Your task to perform on an android device: Go to location settings Image 0: 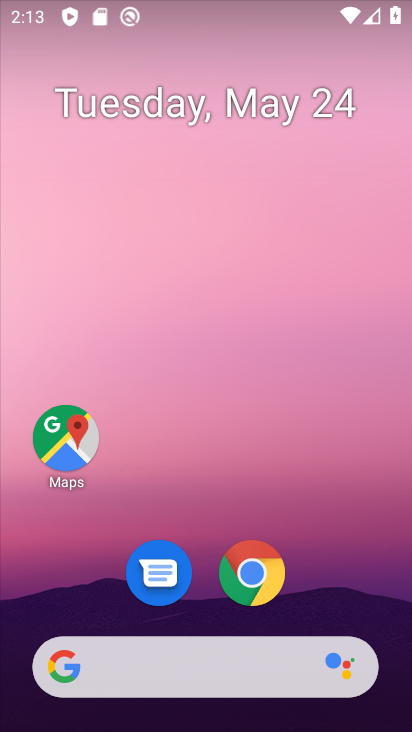
Step 0: drag from (259, 347) to (190, 23)
Your task to perform on an android device: Go to location settings Image 1: 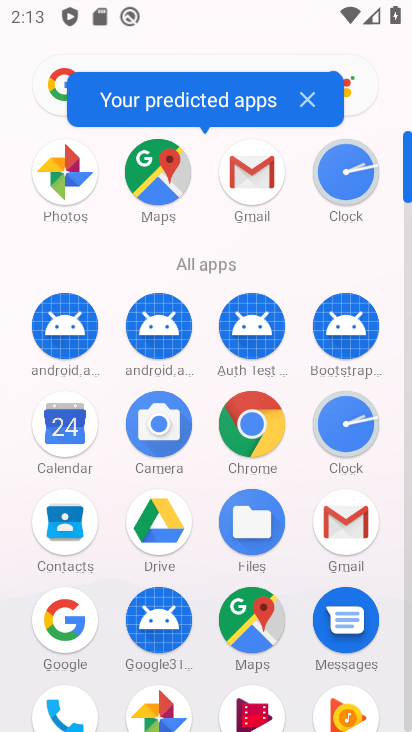
Step 1: drag from (13, 617) to (1, 249)
Your task to perform on an android device: Go to location settings Image 2: 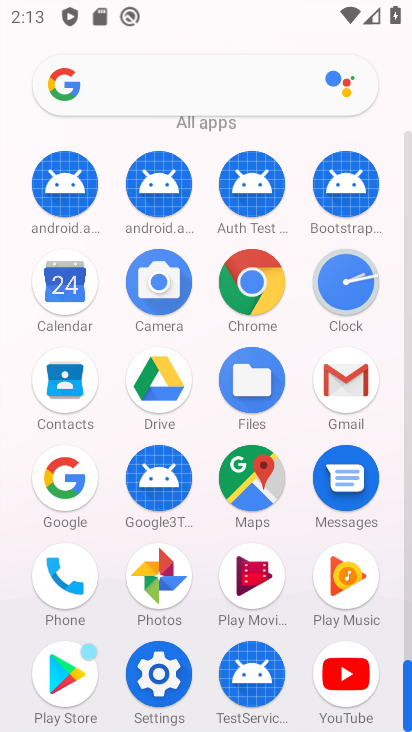
Step 2: click (155, 669)
Your task to perform on an android device: Go to location settings Image 3: 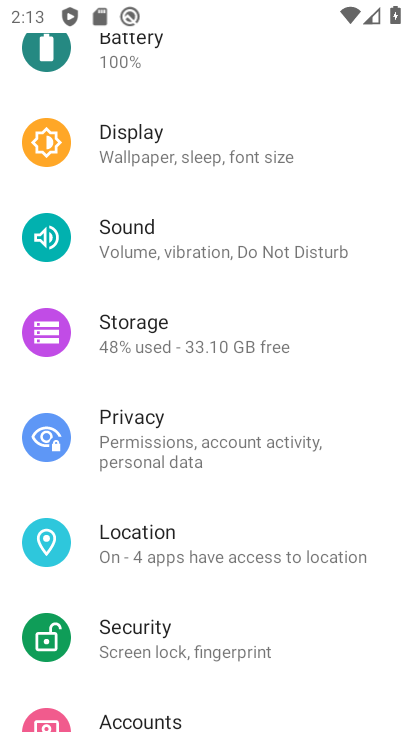
Step 3: click (143, 531)
Your task to perform on an android device: Go to location settings Image 4: 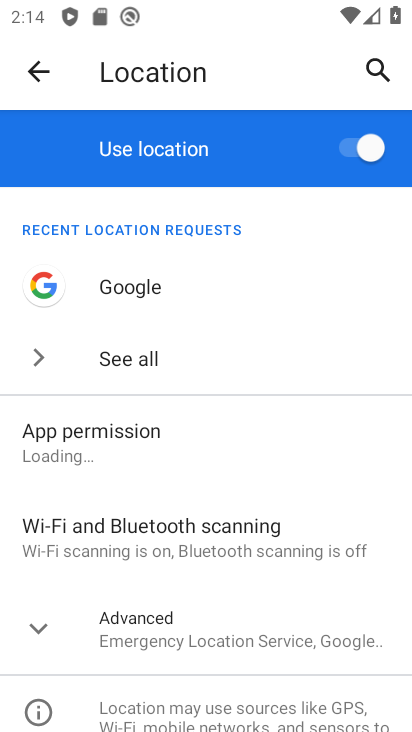
Step 4: click (38, 618)
Your task to perform on an android device: Go to location settings Image 5: 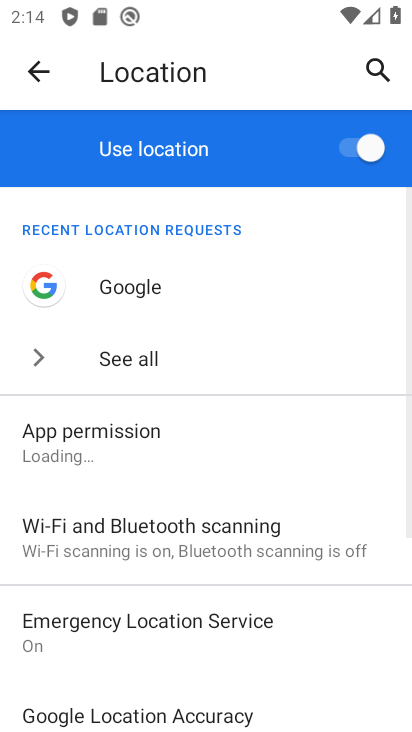
Step 5: task complete